Your task to perform on an android device: uninstall "Microsoft Outlook" Image 0: 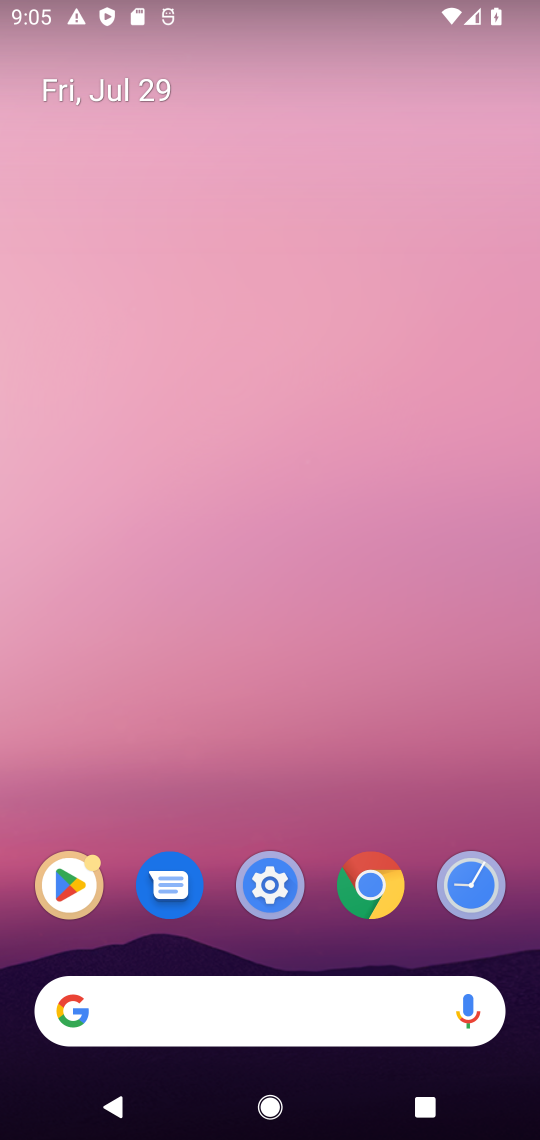
Step 0: click (84, 894)
Your task to perform on an android device: uninstall "Microsoft Outlook" Image 1: 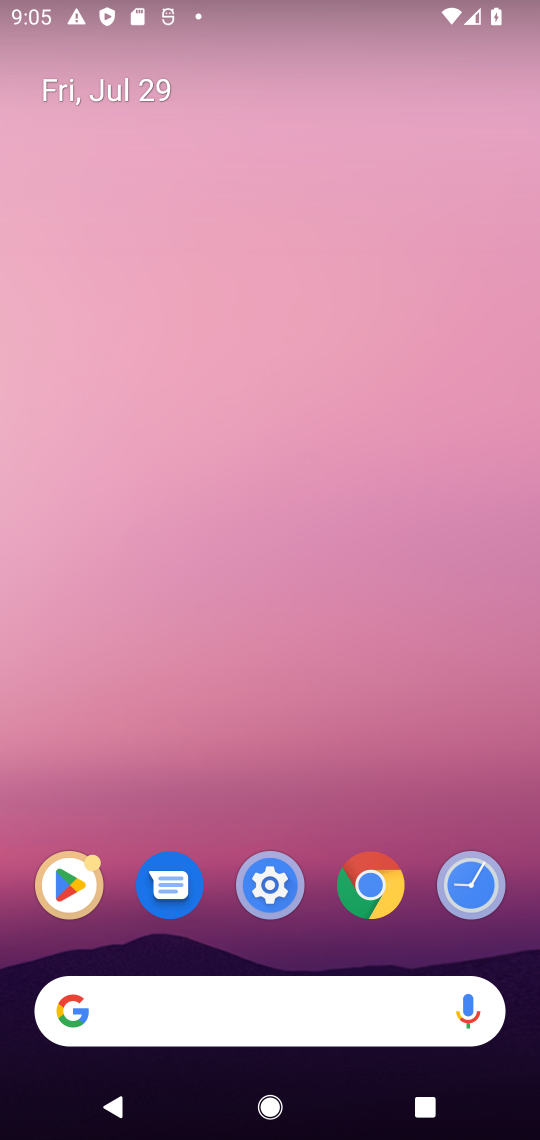
Step 1: click (87, 902)
Your task to perform on an android device: uninstall "Microsoft Outlook" Image 2: 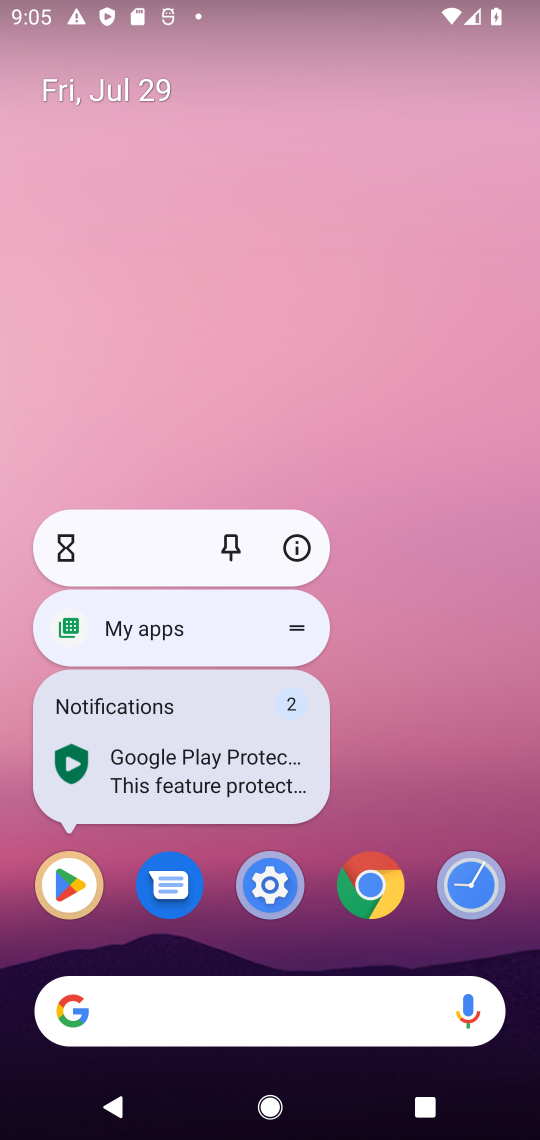
Step 2: click (77, 904)
Your task to perform on an android device: uninstall "Microsoft Outlook" Image 3: 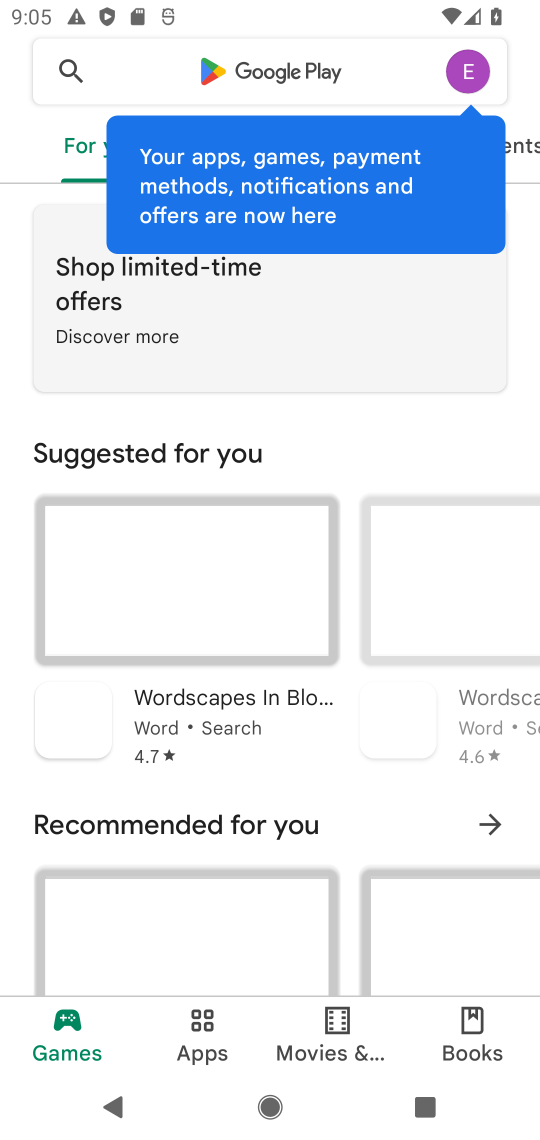
Step 3: click (282, 75)
Your task to perform on an android device: uninstall "Microsoft Outlook" Image 4: 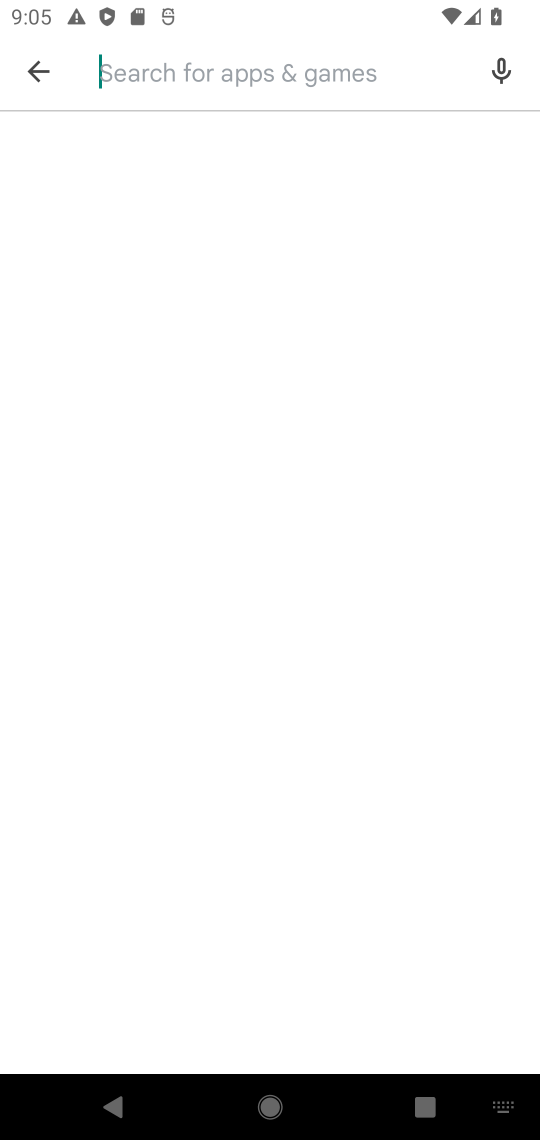
Step 4: type "microsoft outlook"
Your task to perform on an android device: uninstall "Microsoft Outlook" Image 5: 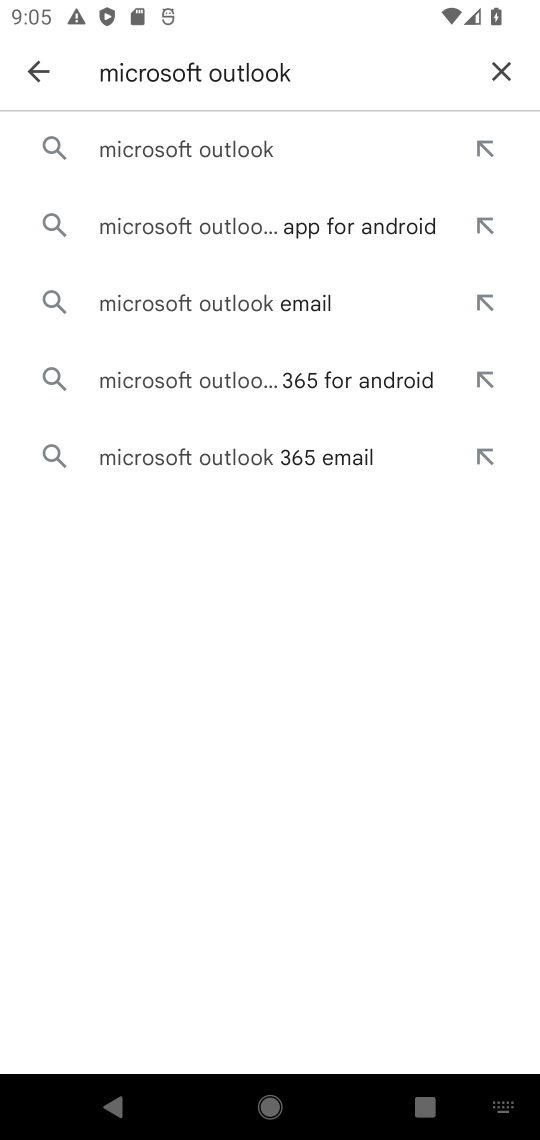
Step 5: click (194, 155)
Your task to perform on an android device: uninstall "Microsoft Outlook" Image 6: 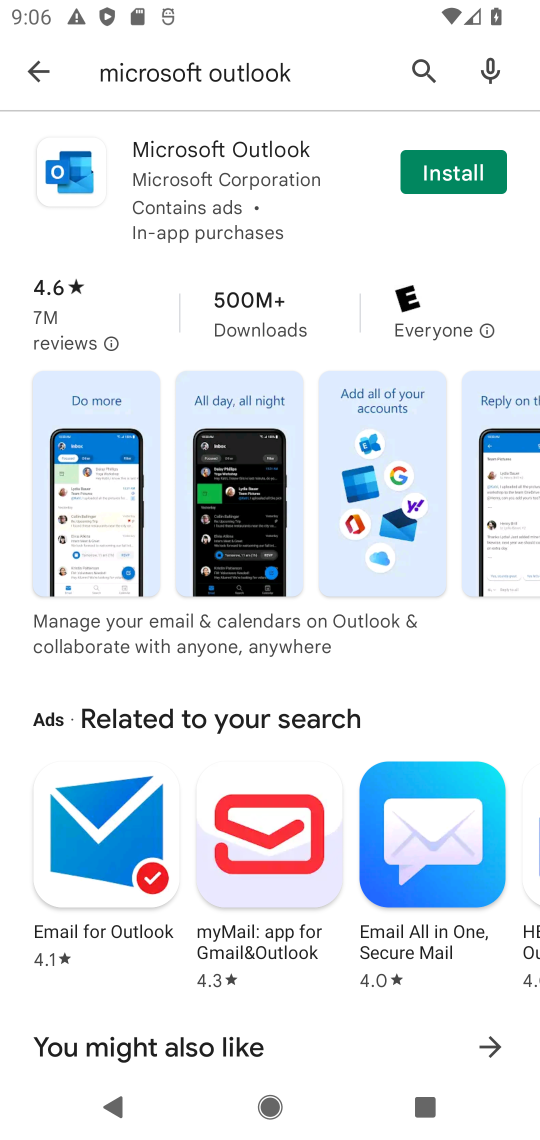
Step 6: task complete